Your task to perform on an android device: Open Android settings Image 0: 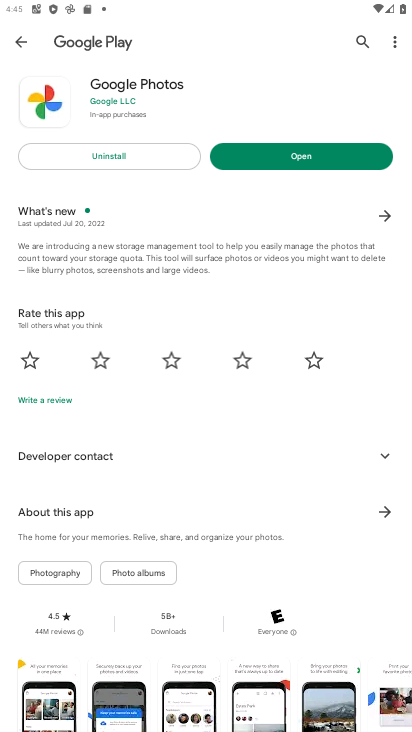
Step 0: press home button
Your task to perform on an android device: Open Android settings Image 1: 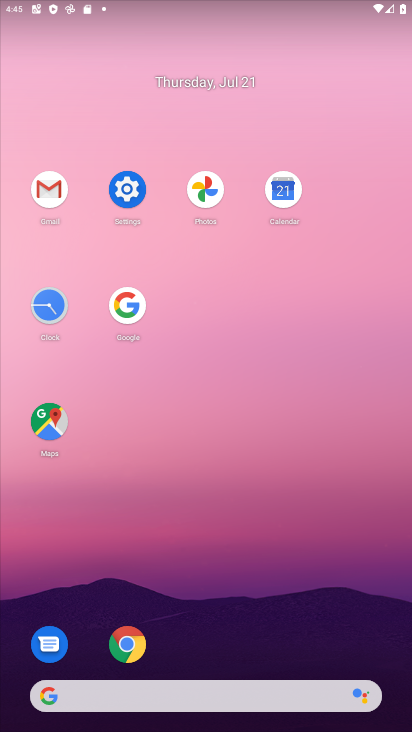
Step 1: click (125, 196)
Your task to perform on an android device: Open Android settings Image 2: 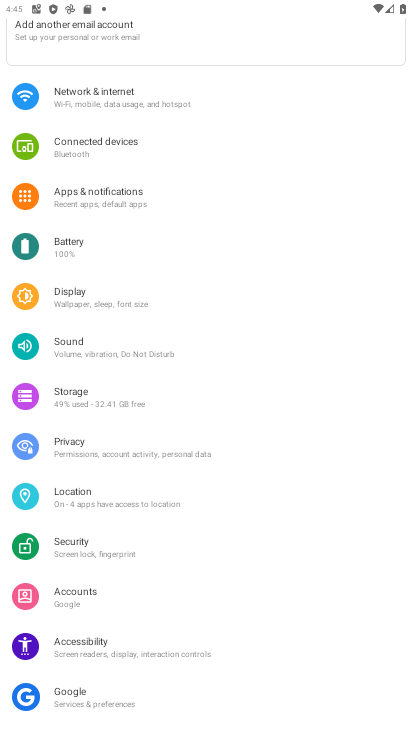
Step 2: task complete